Your task to perform on an android device: Open privacy settings Image 0: 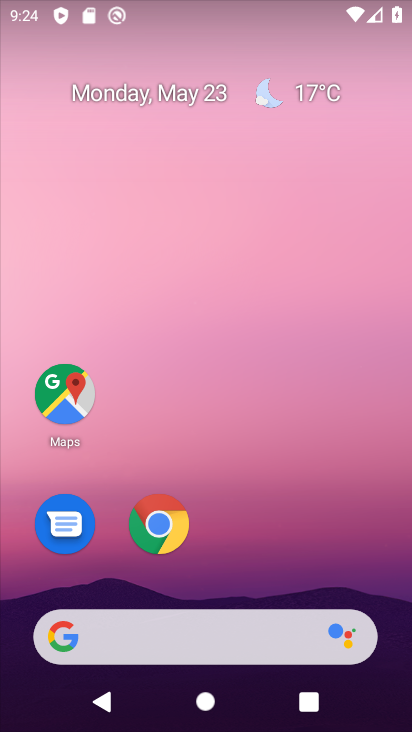
Step 0: drag from (206, 576) to (229, 138)
Your task to perform on an android device: Open privacy settings Image 1: 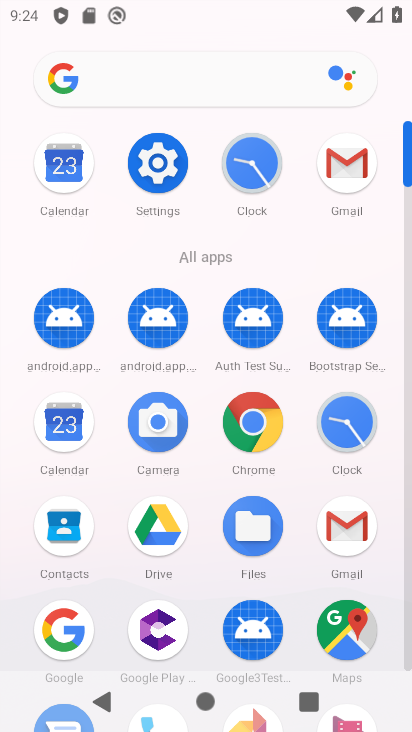
Step 1: click (173, 173)
Your task to perform on an android device: Open privacy settings Image 2: 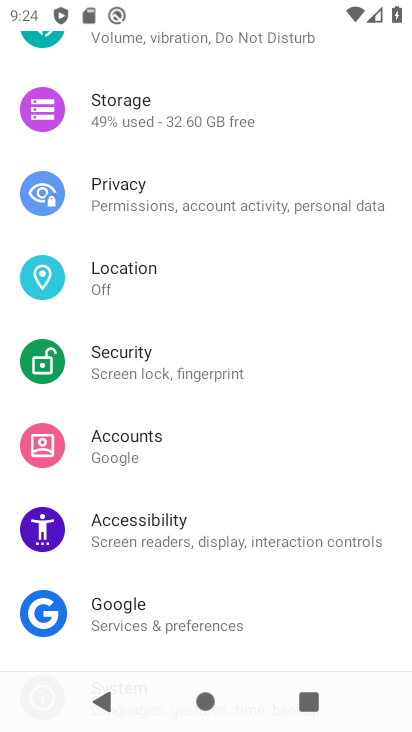
Step 2: click (149, 199)
Your task to perform on an android device: Open privacy settings Image 3: 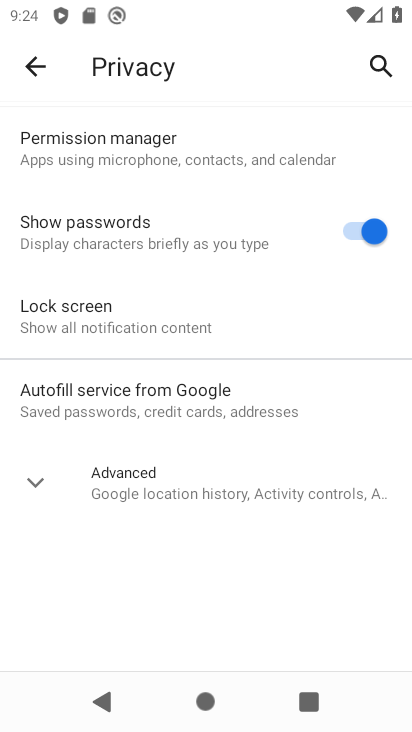
Step 3: task complete